Your task to perform on an android device: create a new album in the google photos Image 0: 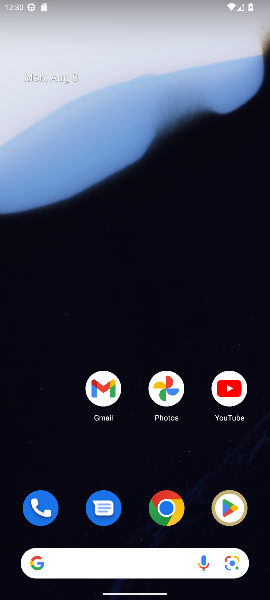
Step 0: click (171, 398)
Your task to perform on an android device: create a new album in the google photos Image 1: 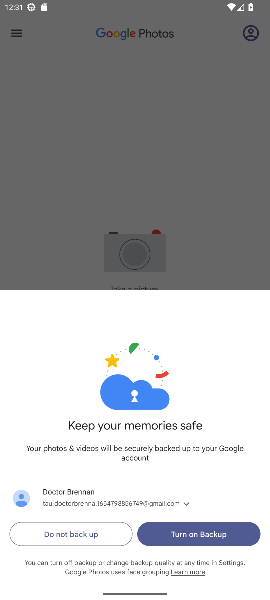
Step 1: click (51, 155)
Your task to perform on an android device: create a new album in the google photos Image 2: 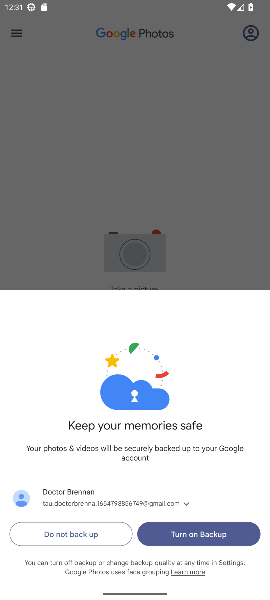
Step 2: task complete